Your task to perform on an android device: search for starred emails in the gmail app Image 0: 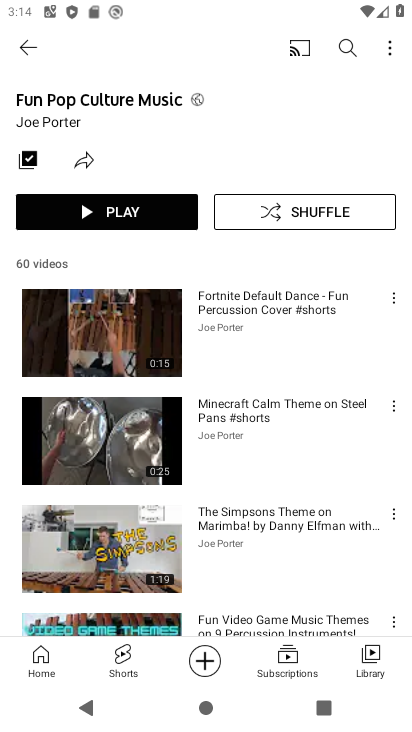
Step 0: press home button
Your task to perform on an android device: search for starred emails in the gmail app Image 1: 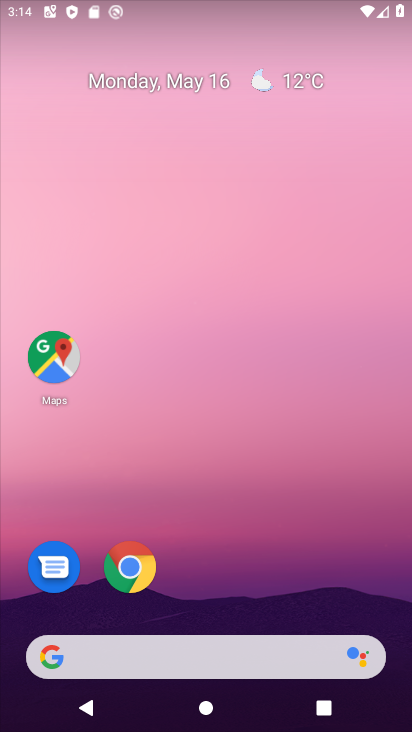
Step 1: drag from (249, 592) to (260, 70)
Your task to perform on an android device: search for starred emails in the gmail app Image 2: 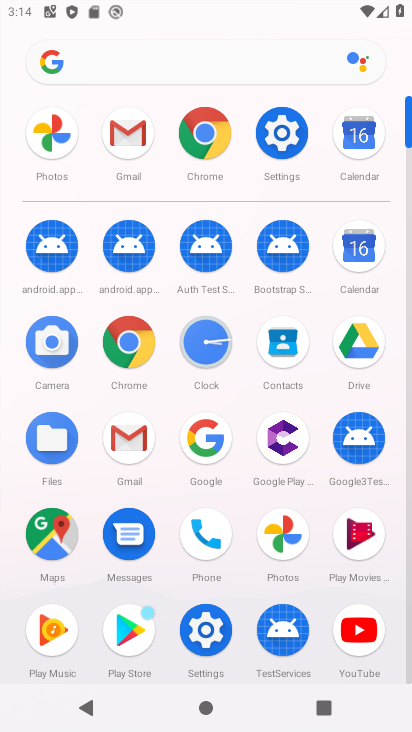
Step 2: click (124, 131)
Your task to perform on an android device: search for starred emails in the gmail app Image 3: 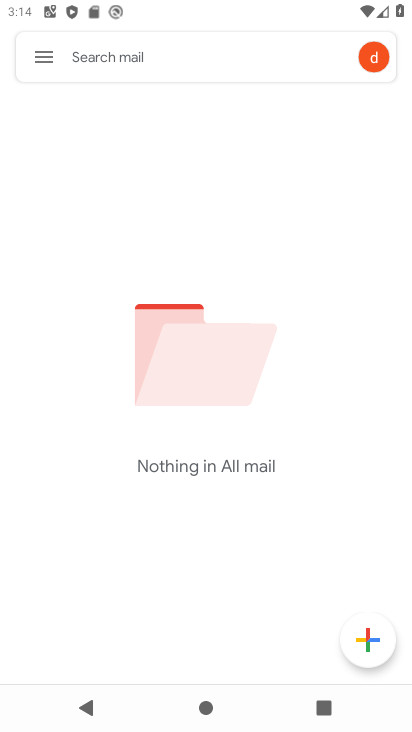
Step 3: click (50, 57)
Your task to perform on an android device: search for starred emails in the gmail app Image 4: 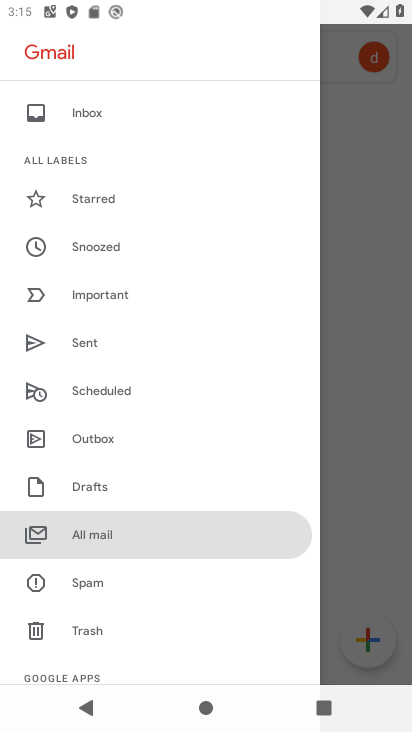
Step 4: click (108, 193)
Your task to perform on an android device: search for starred emails in the gmail app Image 5: 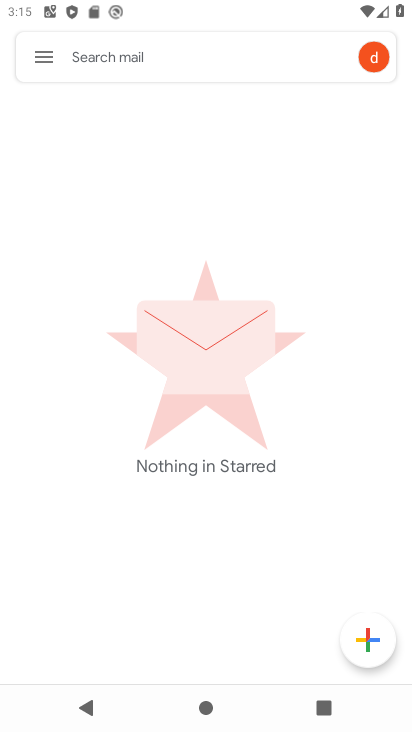
Step 5: task complete